Your task to perform on an android device: What's the weather going to be this weekend? Image 0: 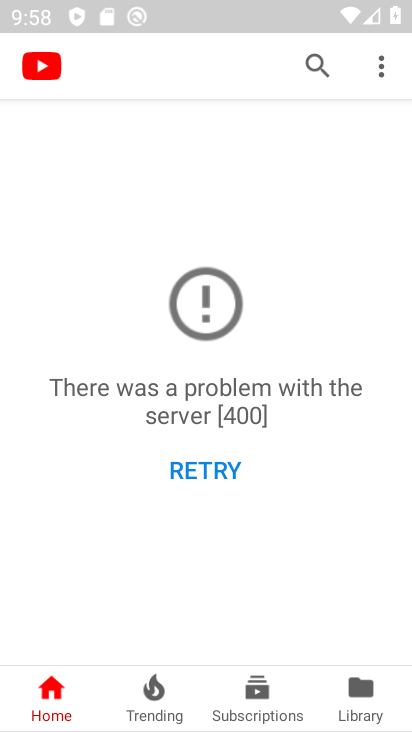
Step 0: task complete